Your task to perform on an android device: uninstall "WhatsApp Messenger" Image 0: 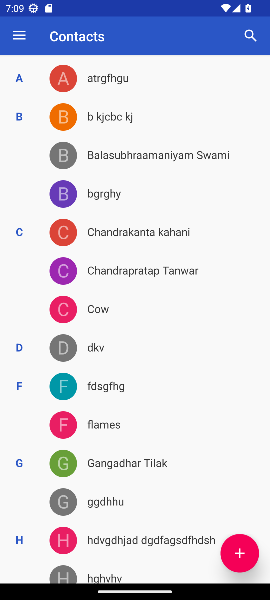
Step 0: press home button
Your task to perform on an android device: uninstall "WhatsApp Messenger" Image 1: 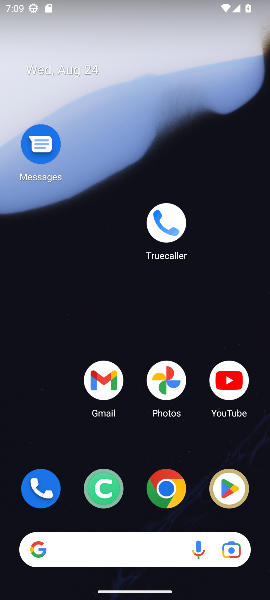
Step 1: click (218, 502)
Your task to perform on an android device: uninstall "WhatsApp Messenger" Image 2: 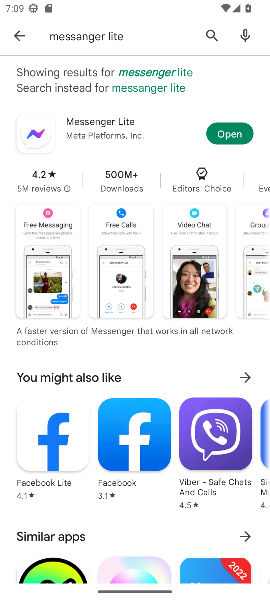
Step 2: click (210, 47)
Your task to perform on an android device: uninstall "WhatsApp Messenger" Image 3: 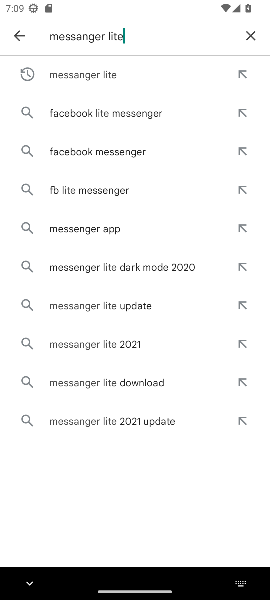
Step 3: click (245, 31)
Your task to perform on an android device: uninstall "WhatsApp Messenger" Image 4: 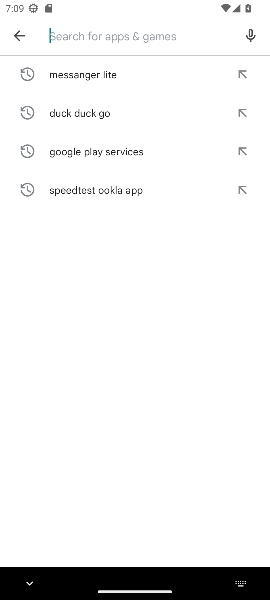
Step 4: type "whatsaap"
Your task to perform on an android device: uninstall "WhatsApp Messenger" Image 5: 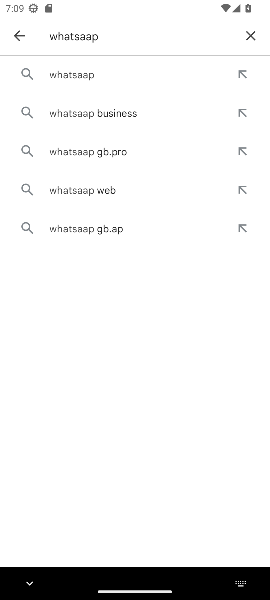
Step 5: click (108, 80)
Your task to perform on an android device: uninstall "WhatsApp Messenger" Image 6: 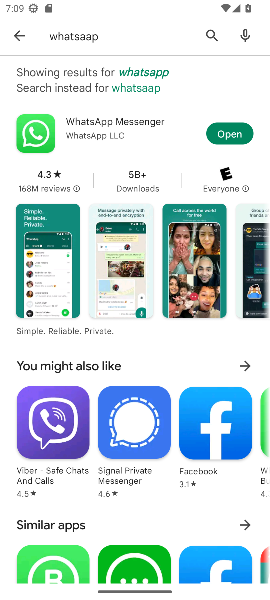
Step 6: click (225, 132)
Your task to perform on an android device: uninstall "WhatsApp Messenger" Image 7: 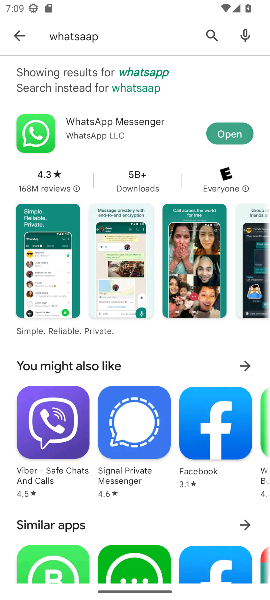
Step 7: task complete